Your task to perform on an android device: Toggle the flashlight Image 0: 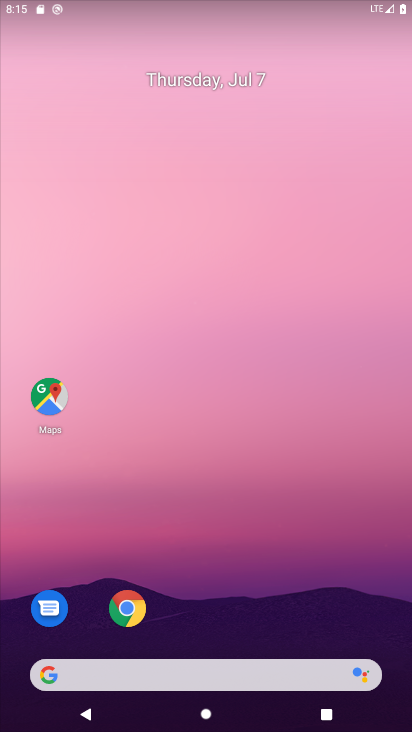
Step 0: drag from (266, 1) to (267, 437)
Your task to perform on an android device: Toggle the flashlight Image 1: 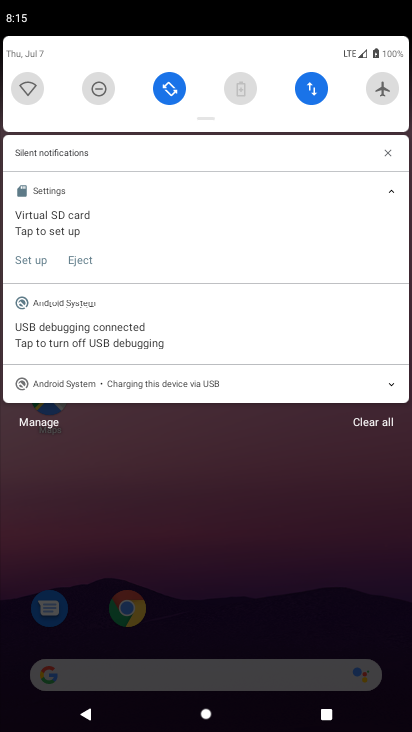
Step 1: task complete